Your task to perform on an android device: open app "Google Pay: Save, Pay, Manage" Image 0: 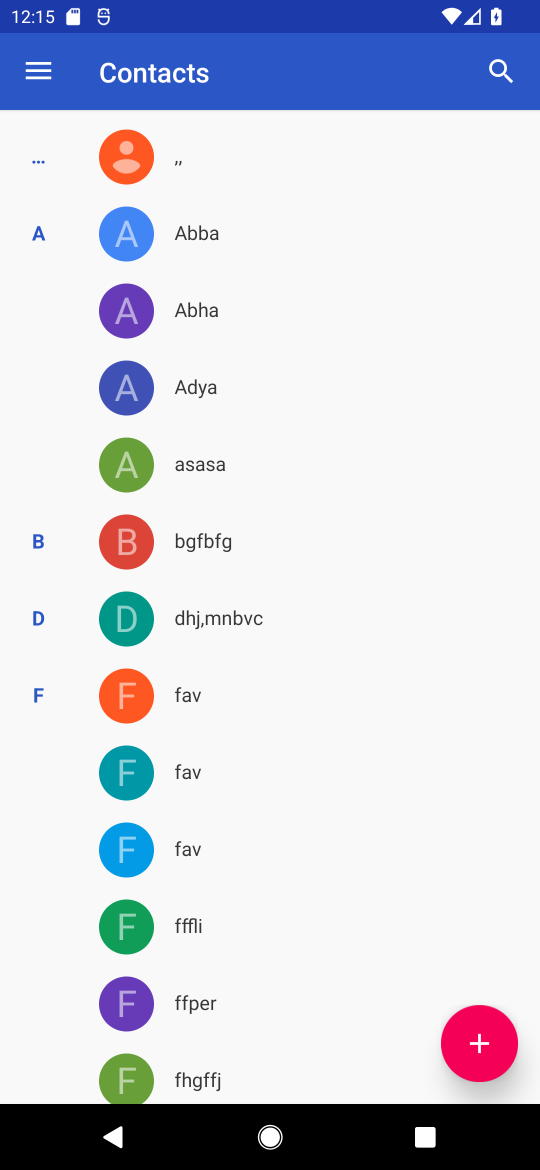
Step 0: press back button
Your task to perform on an android device: open app "Google Pay: Save, Pay, Manage" Image 1: 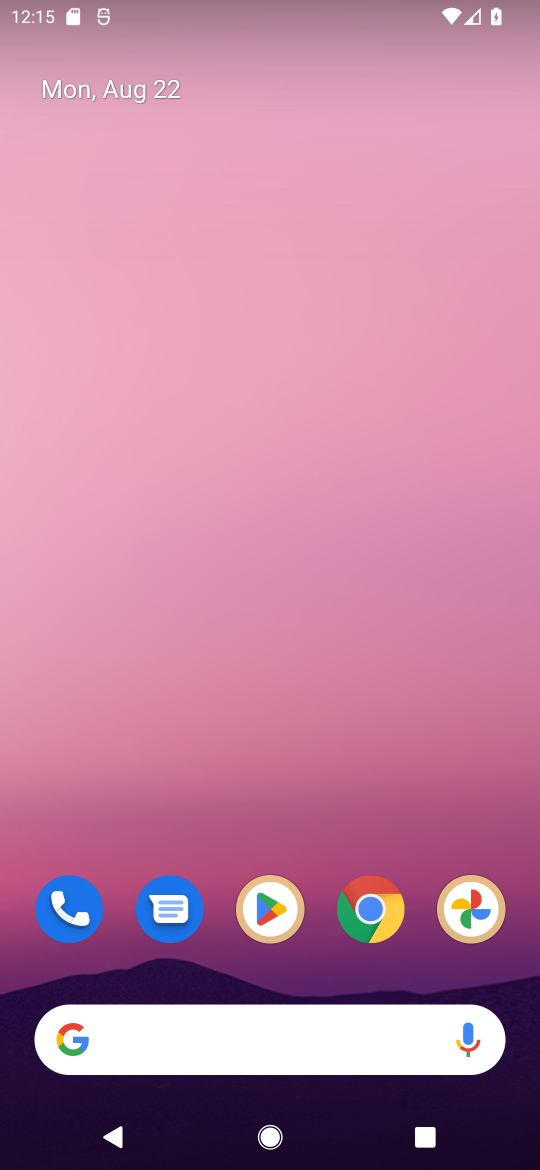
Step 1: click (283, 906)
Your task to perform on an android device: open app "Google Pay: Save, Pay, Manage" Image 2: 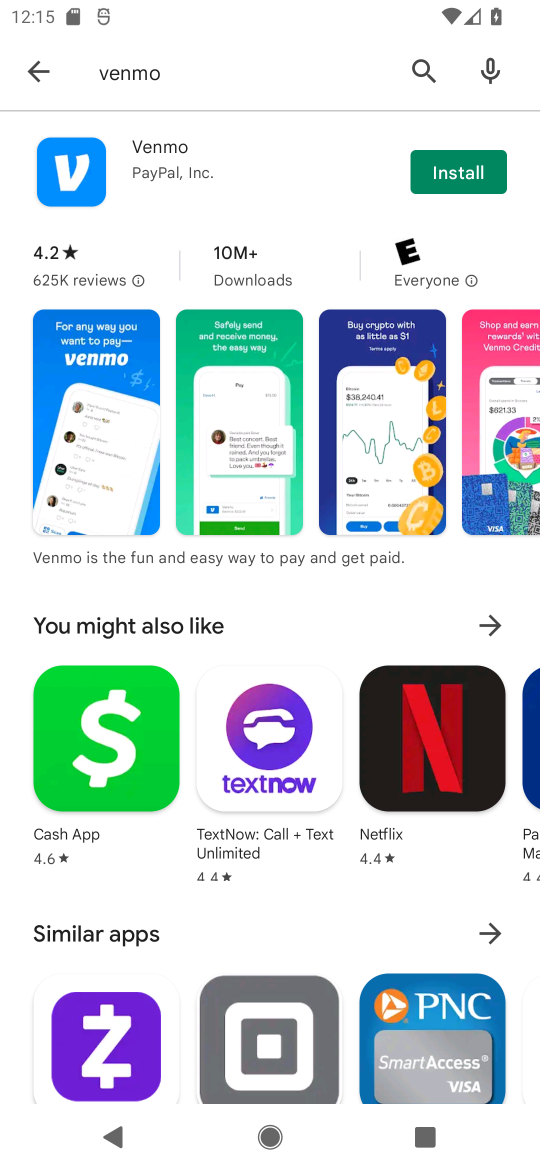
Step 2: click (430, 54)
Your task to perform on an android device: open app "Google Pay: Save, Pay, Manage" Image 3: 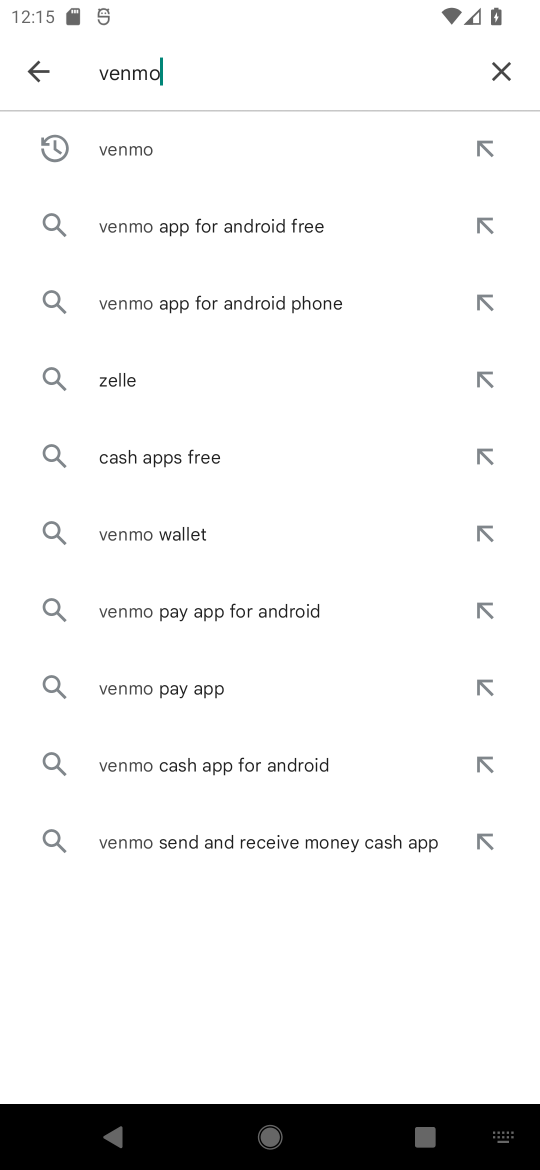
Step 3: click (495, 88)
Your task to perform on an android device: open app "Google Pay: Save, Pay, Manage" Image 4: 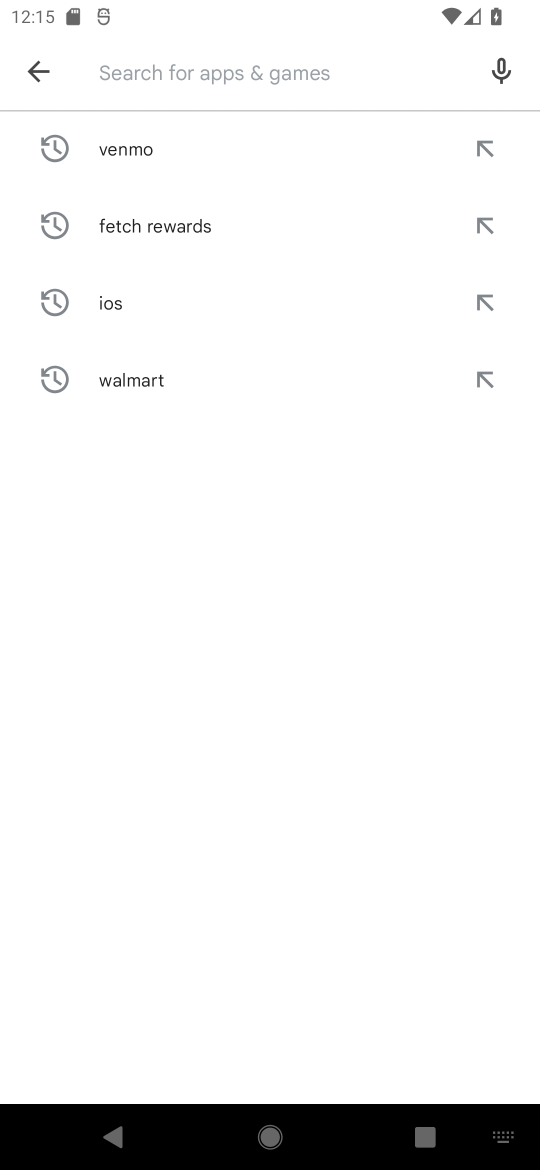
Step 4: click (193, 65)
Your task to perform on an android device: open app "Google Pay: Save, Pay, Manage" Image 5: 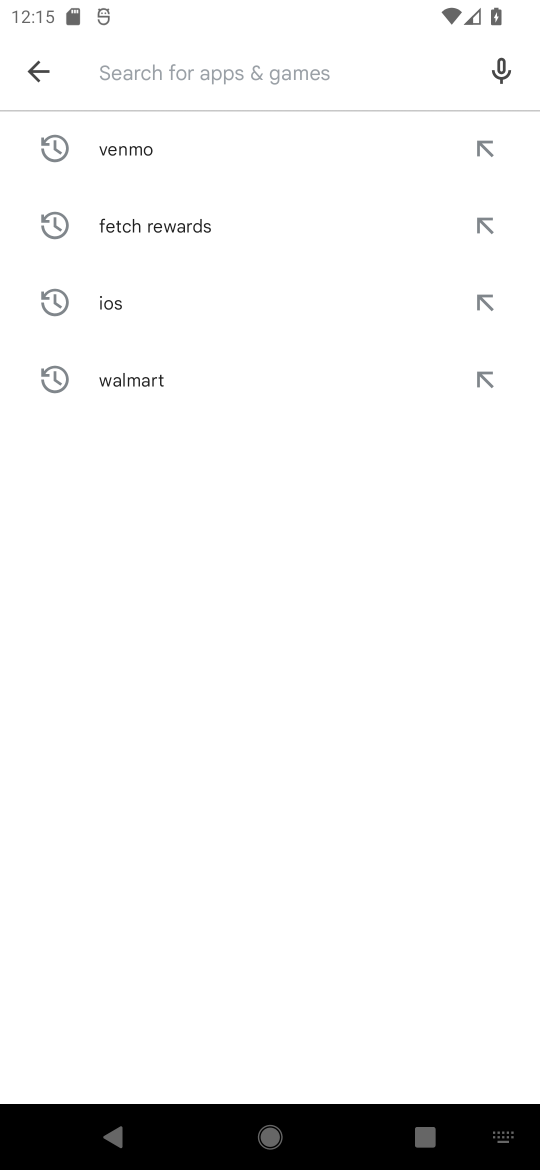
Step 5: type "Google Pay"
Your task to perform on an android device: open app "Google Pay: Save, Pay, Manage" Image 6: 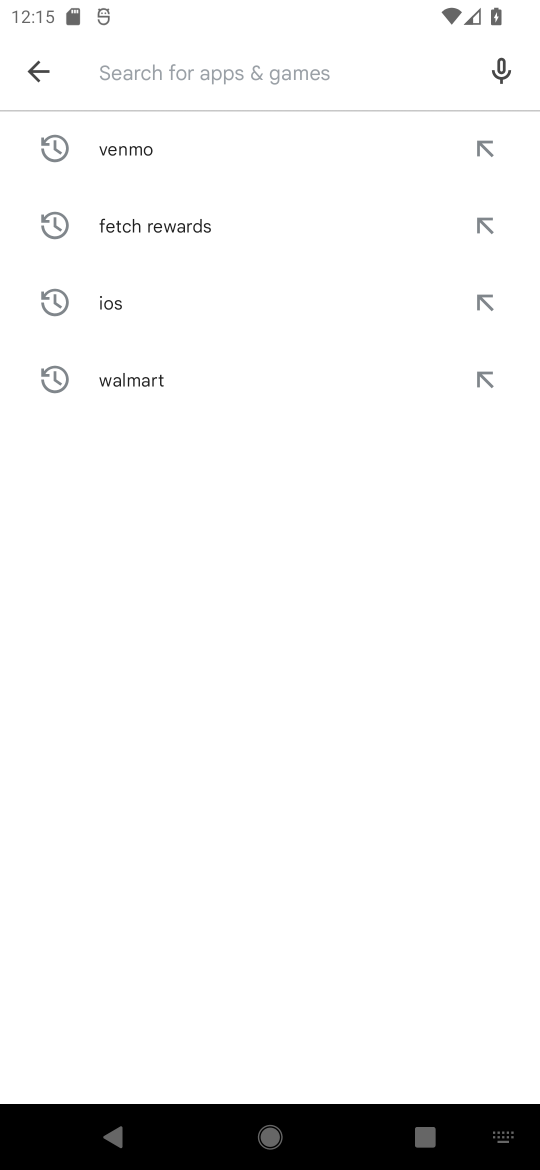
Step 6: click (277, 820)
Your task to perform on an android device: open app "Google Pay: Save, Pay, Manage" Image 7: 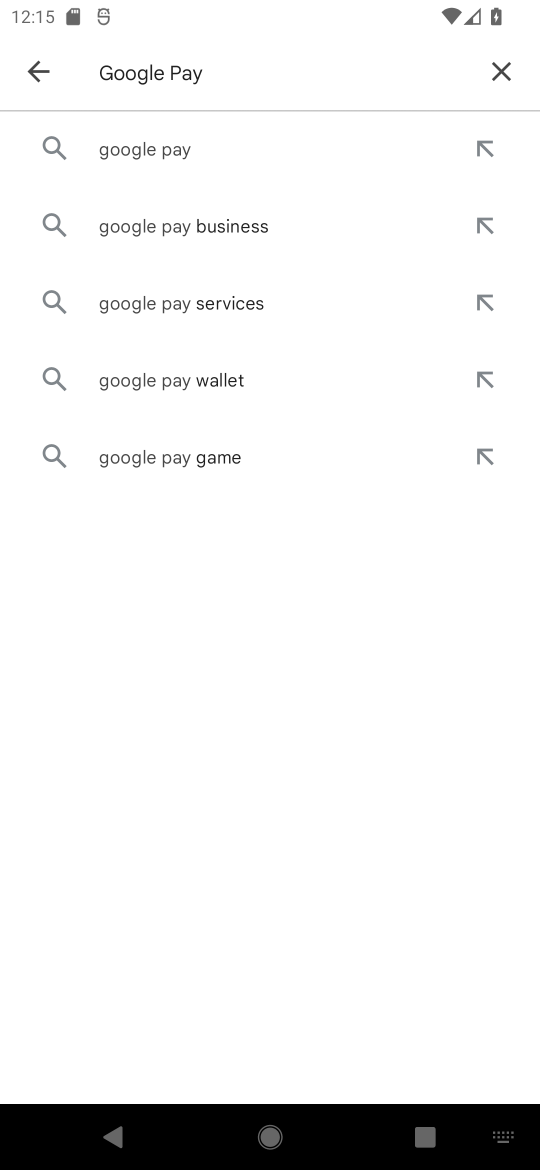
Step 7: click (150, 141)
Your task to perform on an android device: open app "Google Pay: Save, Pay, Manage" Image 8: 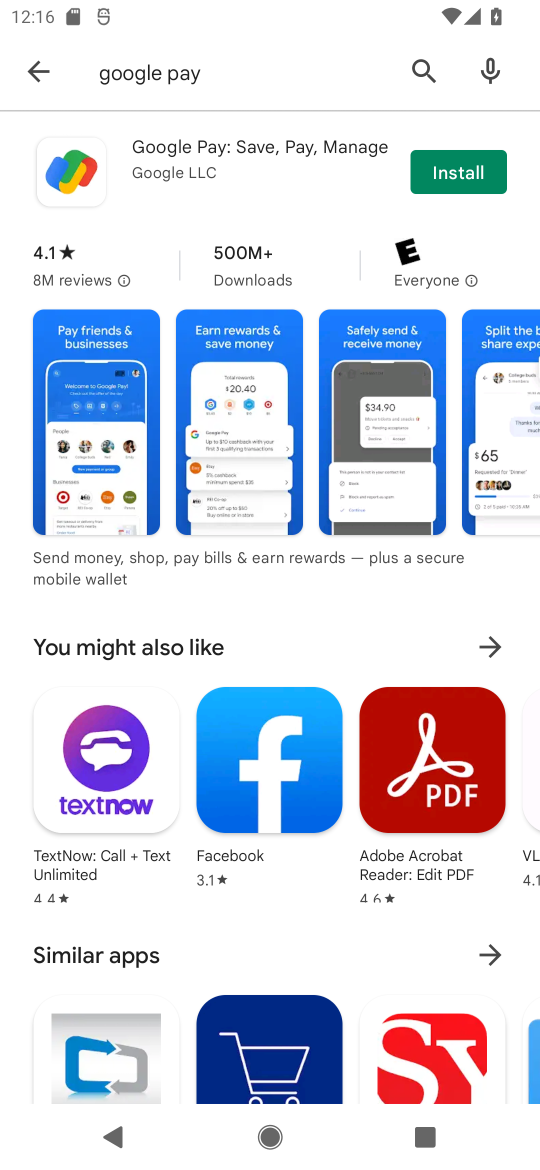
Step 8: task complete